Your task to perform on an android device: Clear all items from cart on walmart. Image 0: 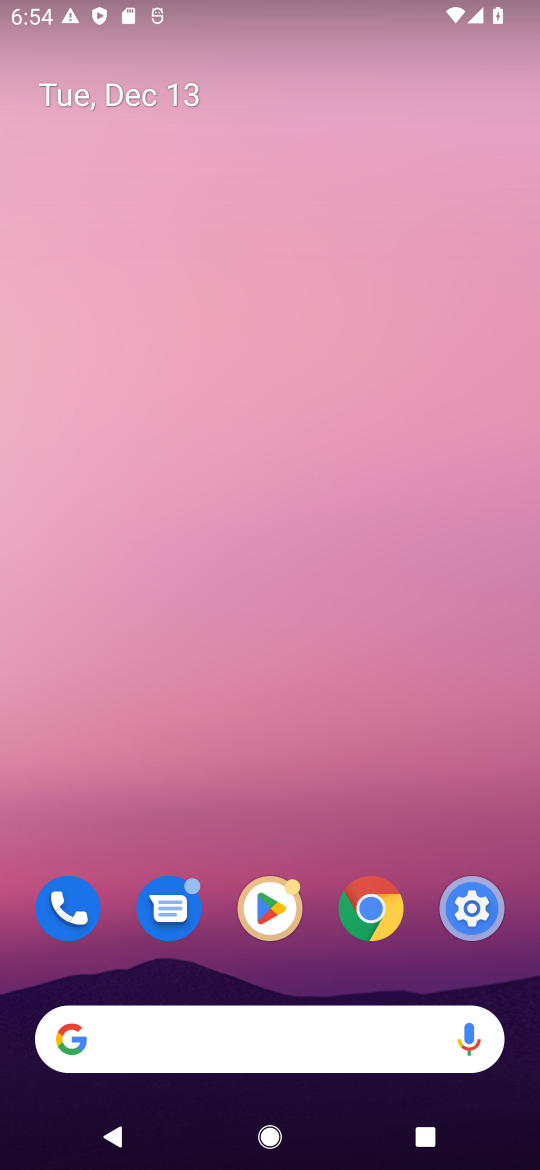
Step 0: press home button
Your task to perform on an android device: Clear all items from cart on walmart. Image 1: 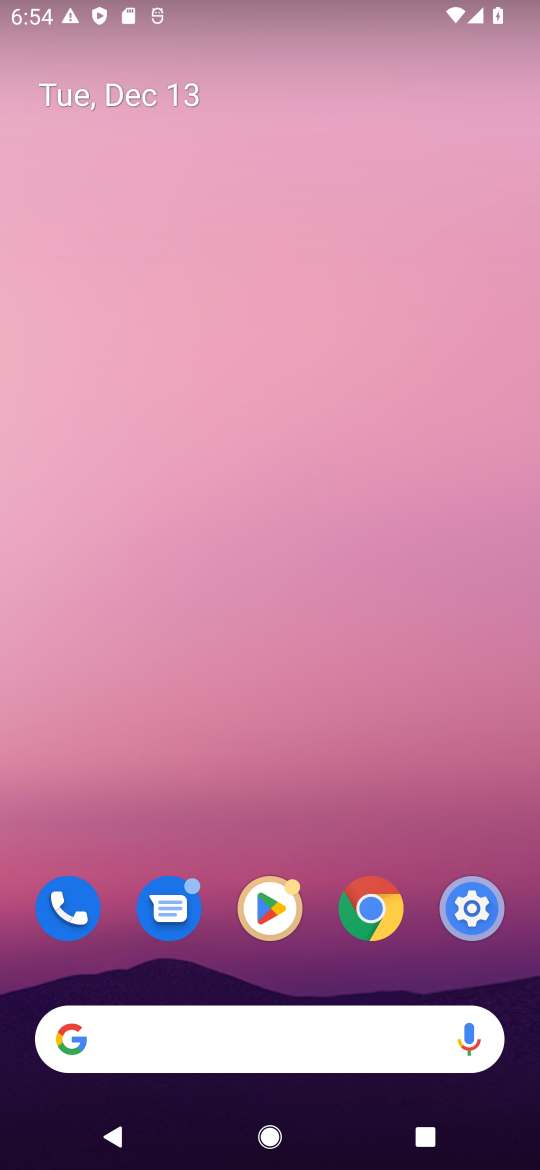
Step 1: click (115, 1036)
Your task to perform on an android device: Clear all items from cart on walmart. Image 2: 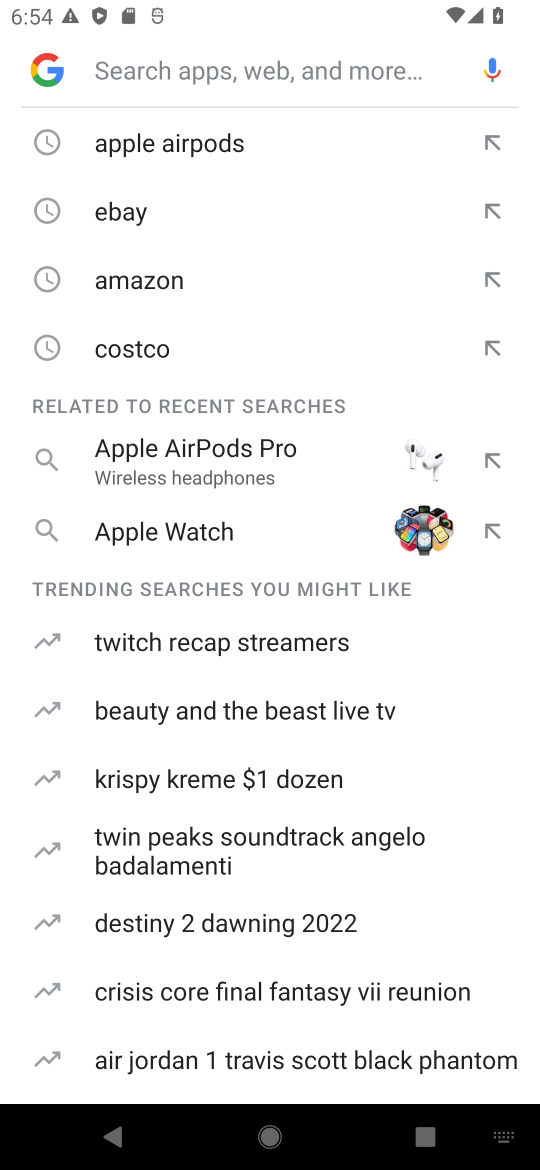
Step 2: type "walmart"
Your task to perform on an android device: Clear all items from cart on walmart. Image 3: 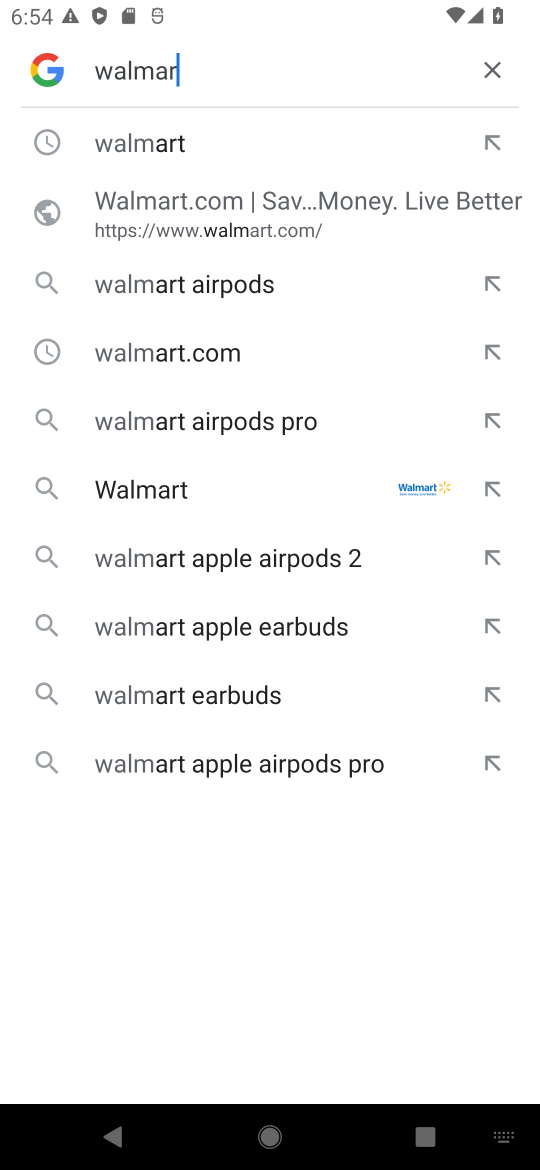
Step 3: press enter
Your task to perform on an android device: Clear all items from cart on walmart. Image 4: 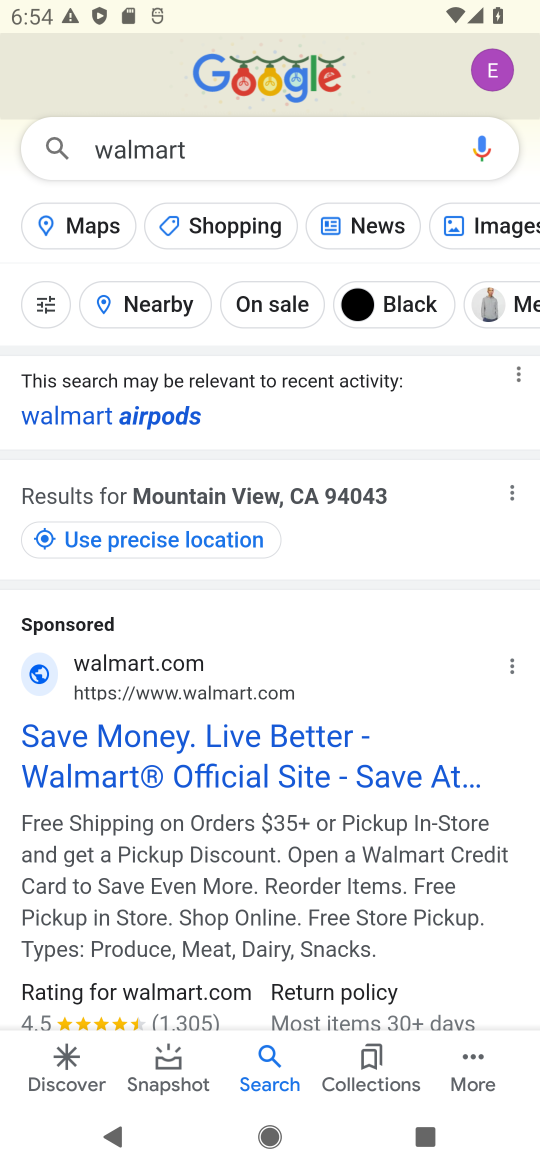
Step 4: click (115, 781)
Your task to perform on an android device: Clear all items from cart on walmart. Image 5: 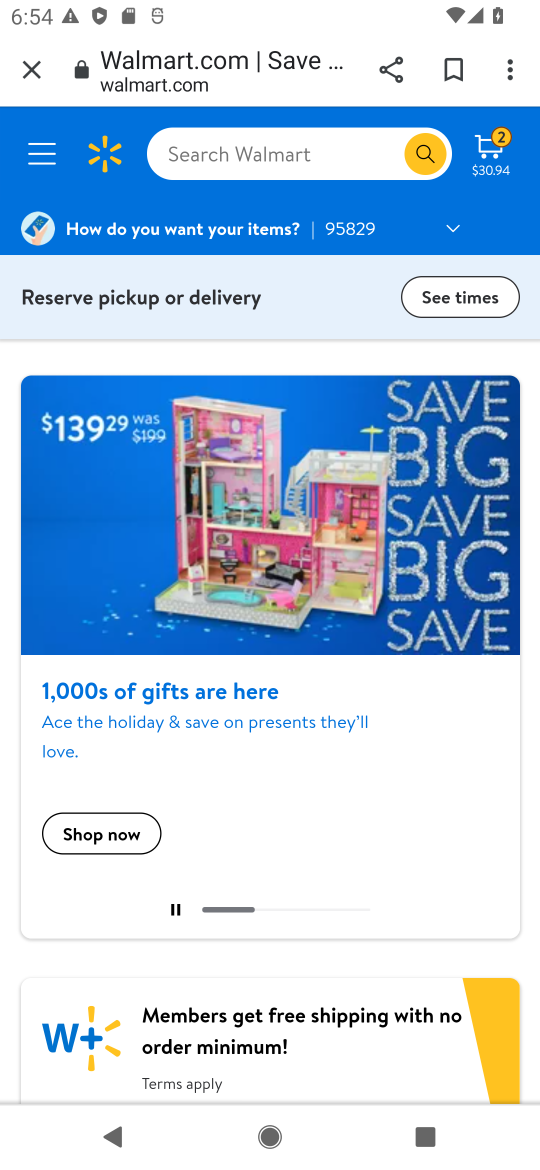
Step 5: click (499, 144)
Your task to perform on an android device: Clear all items from cart on walmart. Image 6: 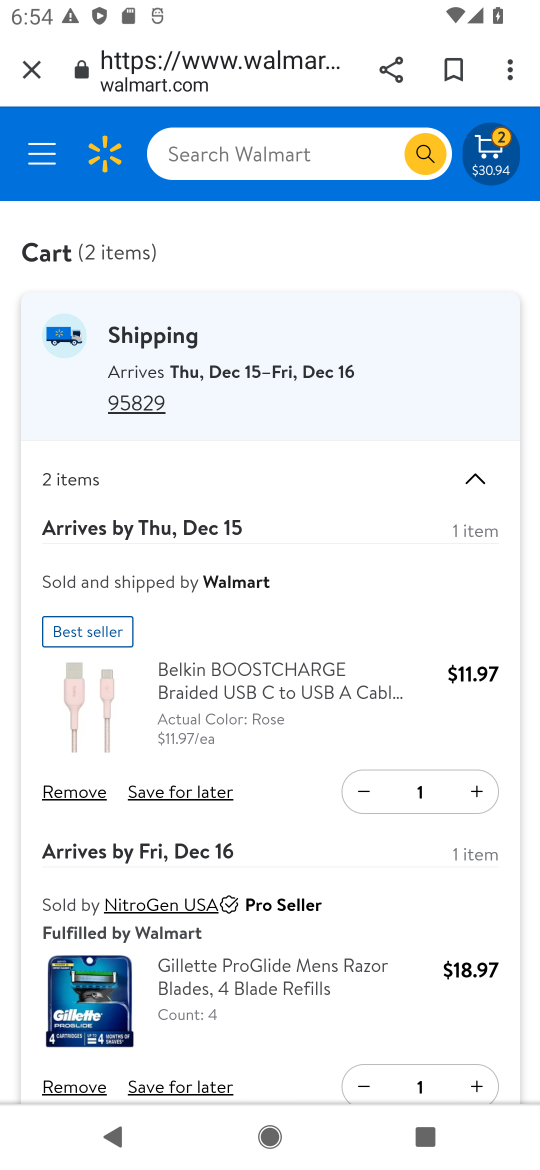
Step 6: click (82, 788)
Your task to perform on an android device: Clear all items from cart on walmart. Image 7: 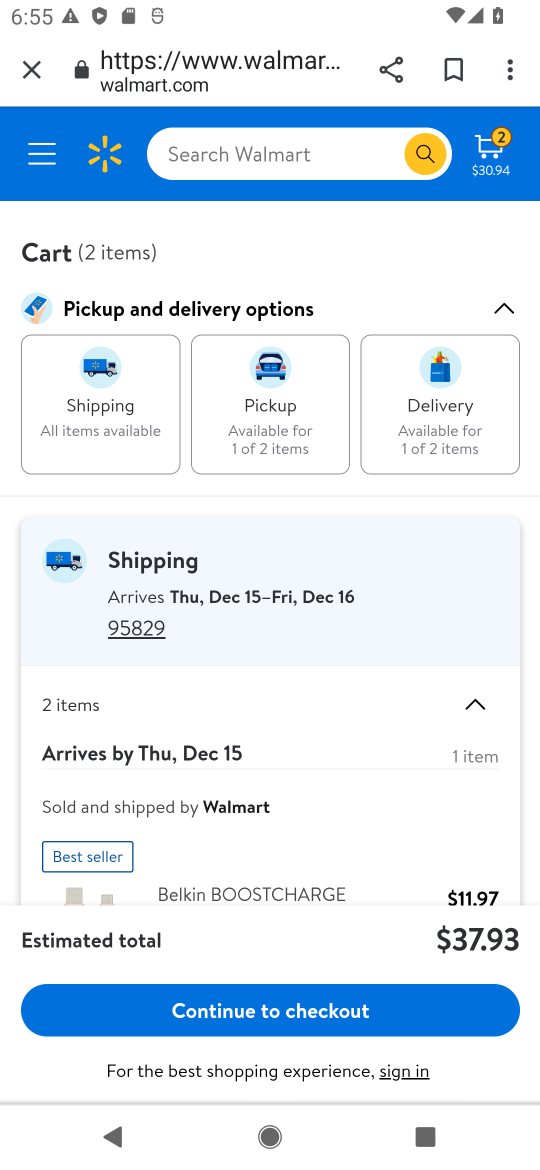
Step 7: drag from (236, 855) to (275, 595)
Your task to perform on an android device: Clear all items from cart on walmart. Image 8: 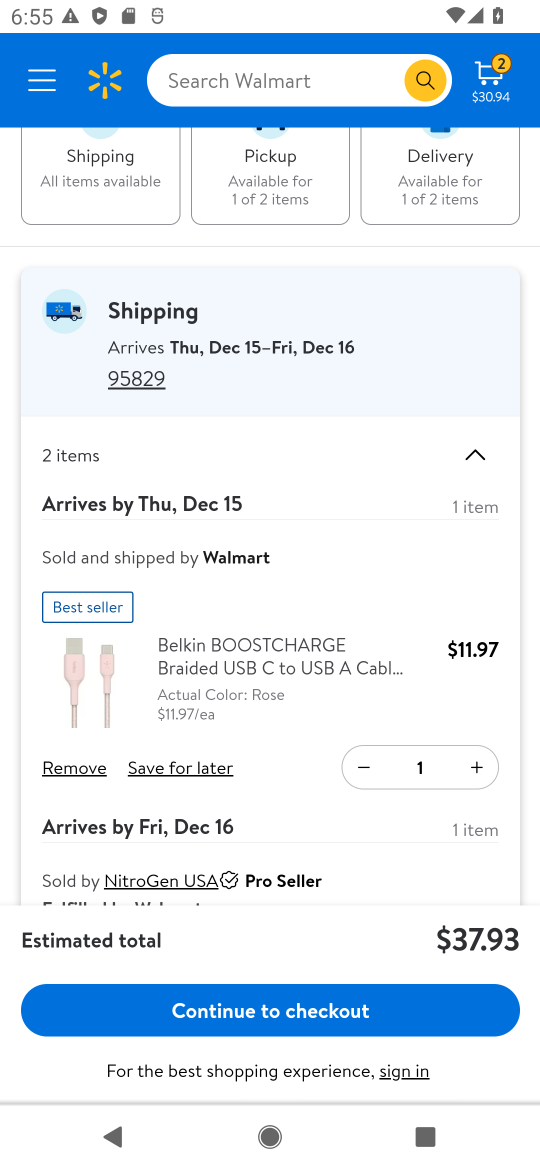
Step 8: click (64, 764)
Your task to perform on an android device: Clear all items from cart on walmart. Image 9: 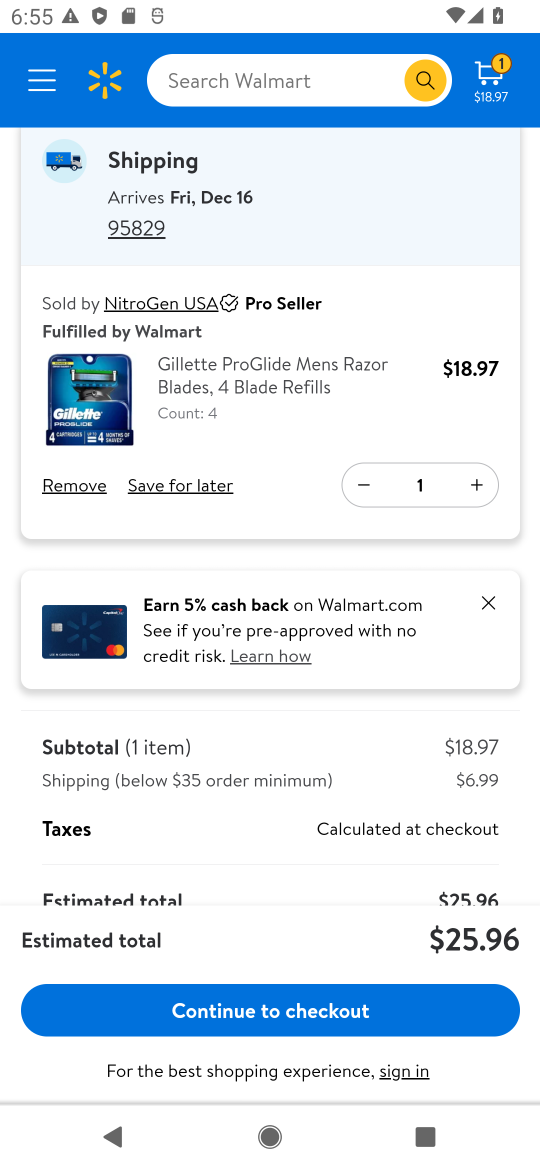
Step 9: click (55, 489)
Your task to perform on an android device: Clear all items from cart on walmart. Image 10: 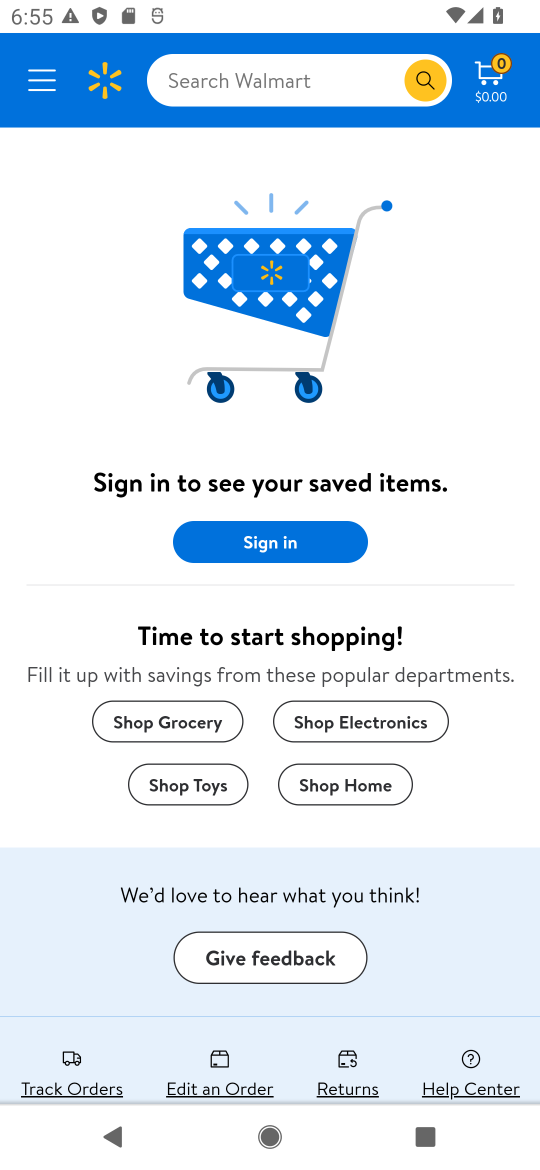
Step 10: task complete